Your task to perform on an android device: turn on translation in the chrome app Image 0: 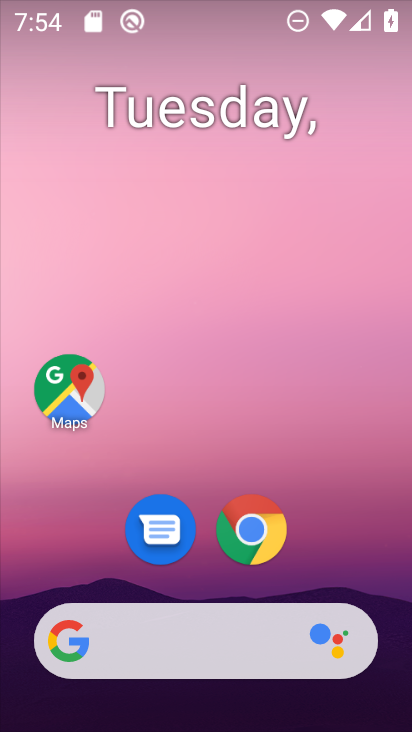
Step 0: drag from (163, 643) to (365, 105)
Your task to perform on an android device: turn on translation in the chrome app Image 1: 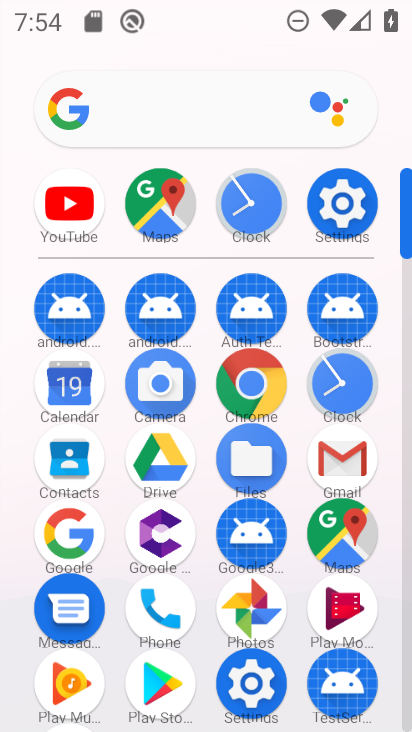
Step 1: click (259, 389)
Your task to perform on an android device: turn on translation in the chrome app Image 2: 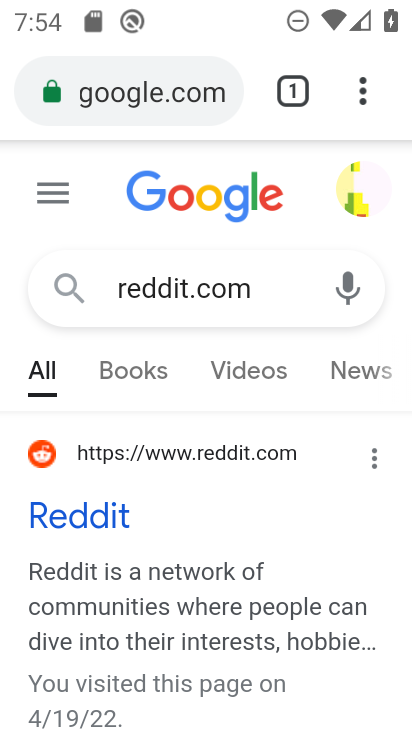
Step 2: click (364, 100)
Your task to perform on an android device: turn on translation in the chrome app Image 3: 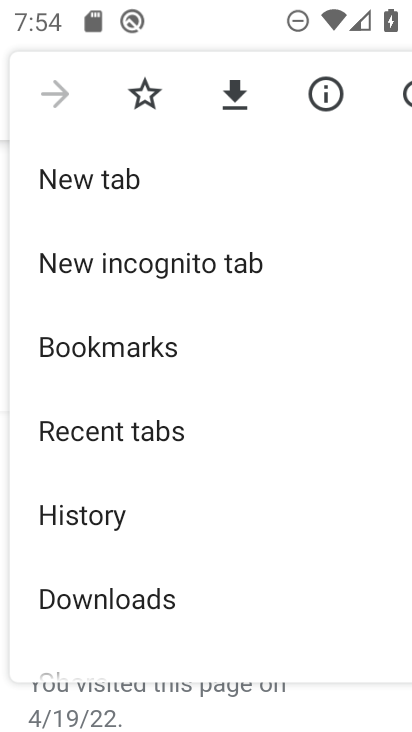
Step 3: drag from (165, 564) to (260, 227)
Your task to perform on an android device: turn on translation in the chrome app Image 4: 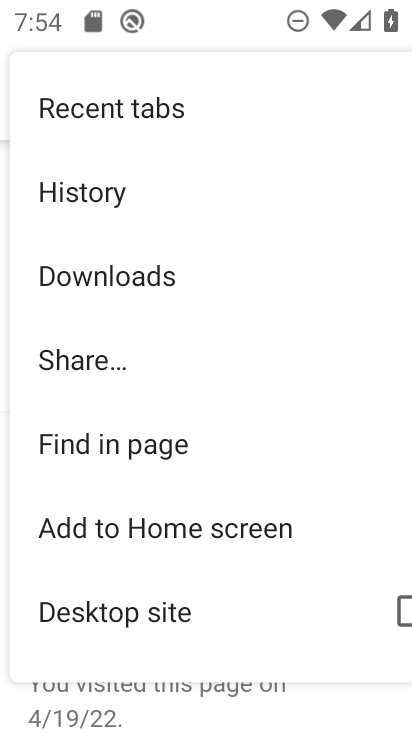
Step 4: drag from (244, 520) to (348, 127)
Your task to perform on an android device: turn on translation in the chrome app Image 5: 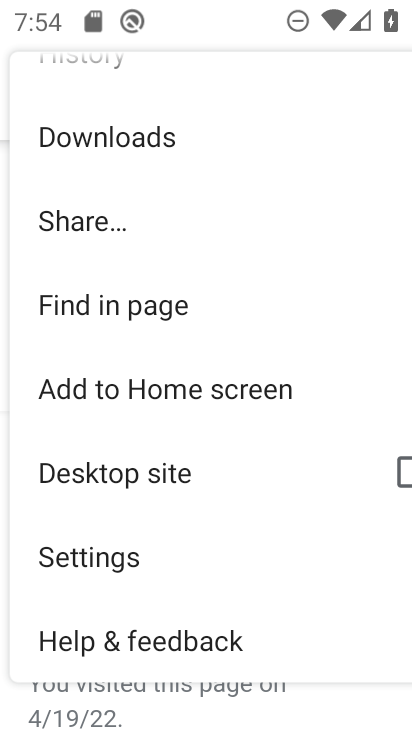
Step 5: click (102, 559)
Your task to perform on an android device: turn on translation in the chrome app Image 6: 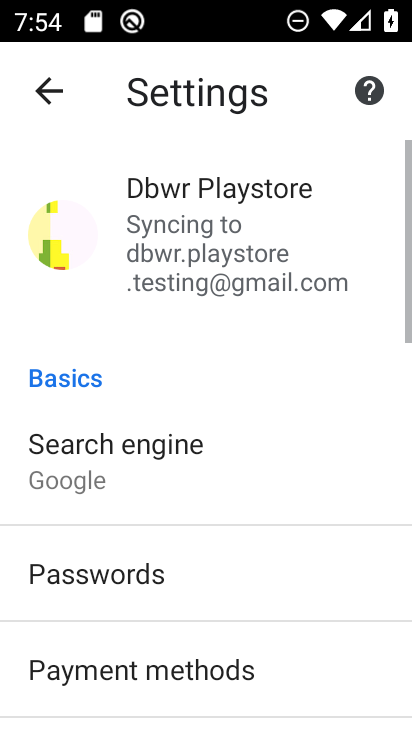
Step 6: drag from (162, 621) to (276, 142)
Your task to perform on an android device: turn on translation in the chrome app Image 7: 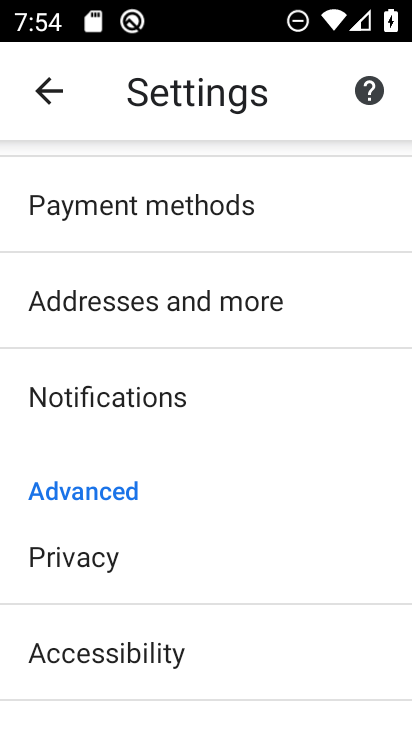
Step 7: drag from (212, 570) to (306, 141)
Your task to perform on an android device: turn on translation in the chrome app Image 8: 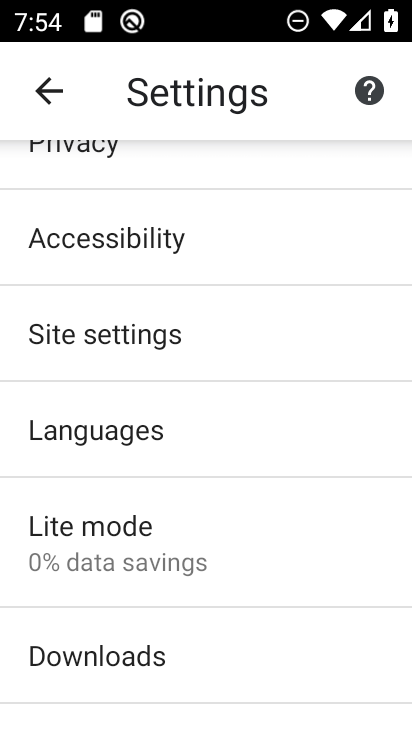
Step 8: click (102, 433)
Your task to perform on an android device: turn on translation in the chrome app Image 9: 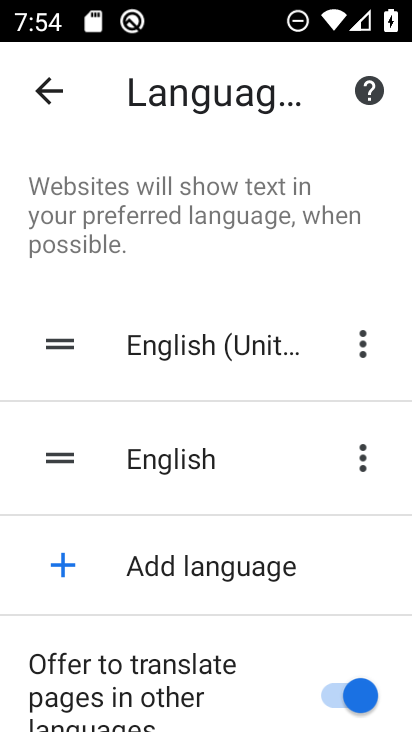
Step 9: task complete